Your task to perform on an android device: see tabs open on other devices in the chrome app Image 0: 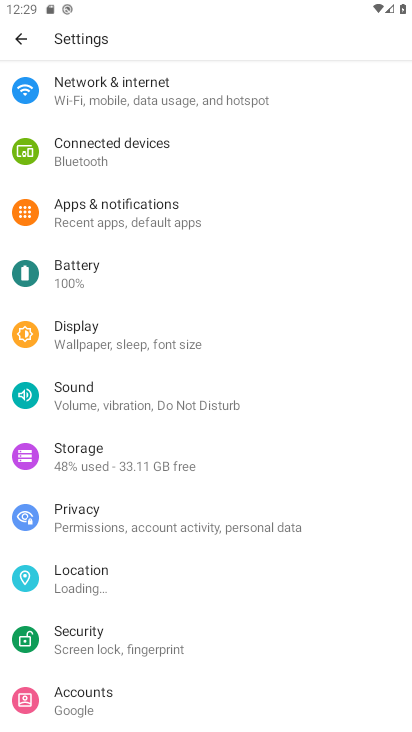
Step 0: press home button
Your task to perform on an android device: see tabs open on other devices in the chrome app Image 1: 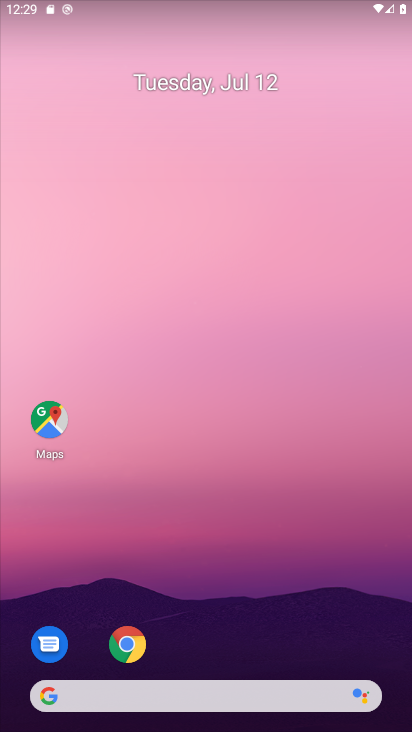
Step 1: drag from (217, 309) to (242, 16)
Your task to perform on an android device: see tabs open on other devices in the chrome app Image 2: 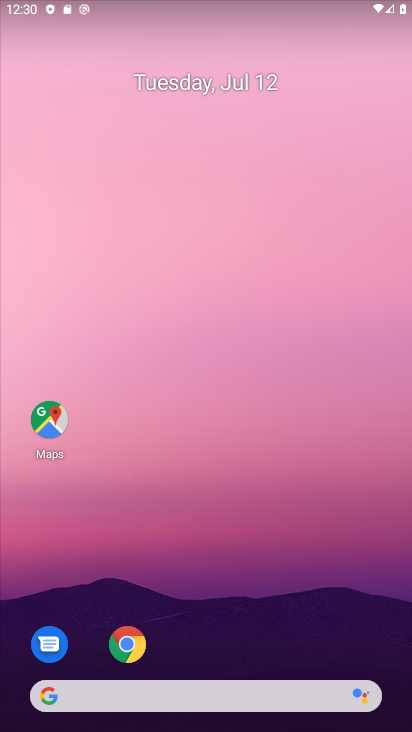
Step 2: drag from (245, 600) to (243, 130)
Your task to perform on an android device: see tabs open on other devices in the chrome app Image 3: 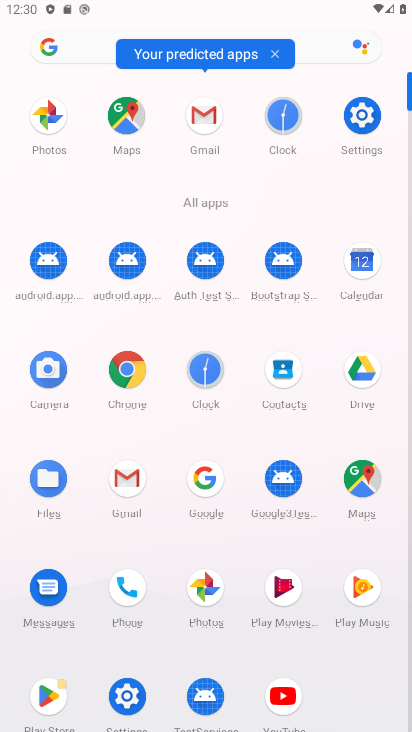
Step 3: click (131, 371)
Your task to perform on an android device: see tabs open on other devices in the chrome app Image 4: 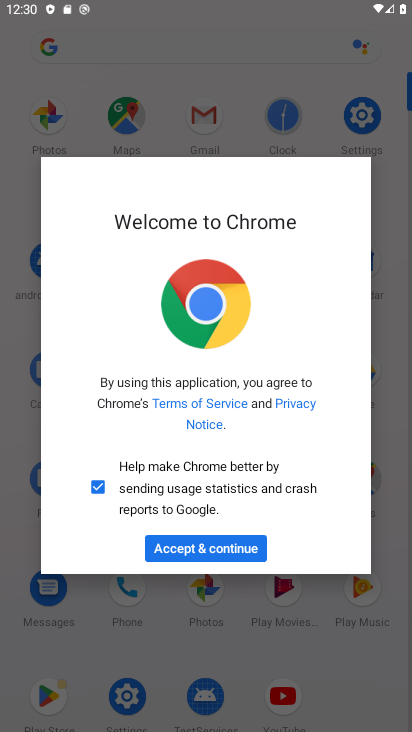
Step 4: click (221, 556)
Your task to perform on an android device: see tabs open on other devices in the chrome app Image 5: 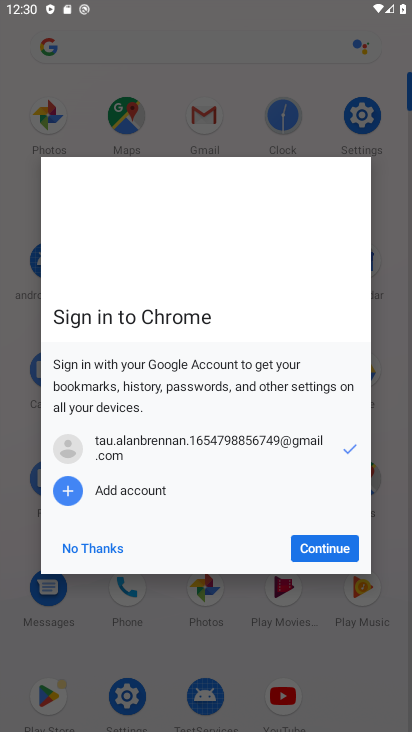
Step 5: click (333, 549)
Your task to perform on an android device: see tabs open on other devices in the chrome app Image 6: 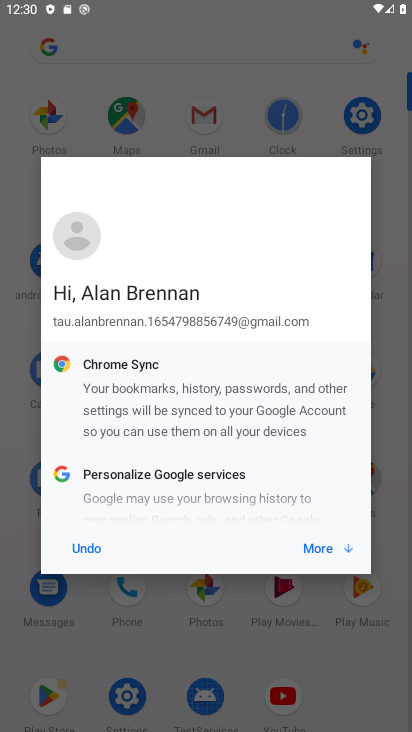
Step 6: click (333, 550)
Your task to perform on an android device: see tabs open on other devices in the chrome app Image 7: 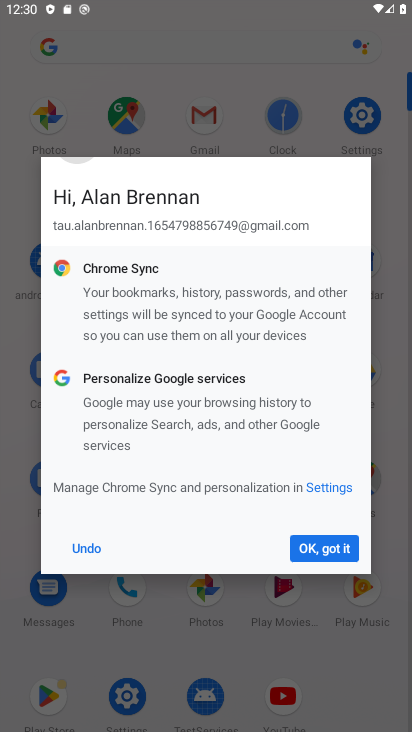
Step 7: click (333, 550)
Your task to perform on an android device: see tabs open on other devices in the chrome app Image 8: 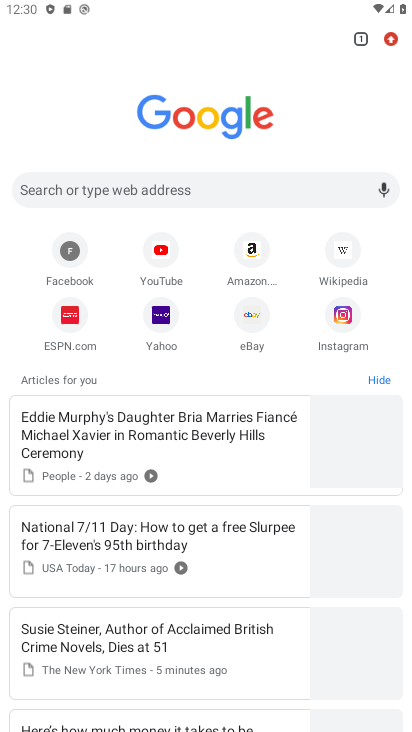
Step 8: click (389, 41)
Your task to perform on an android device: see tabs open on other devices in the chrome app Image 9: 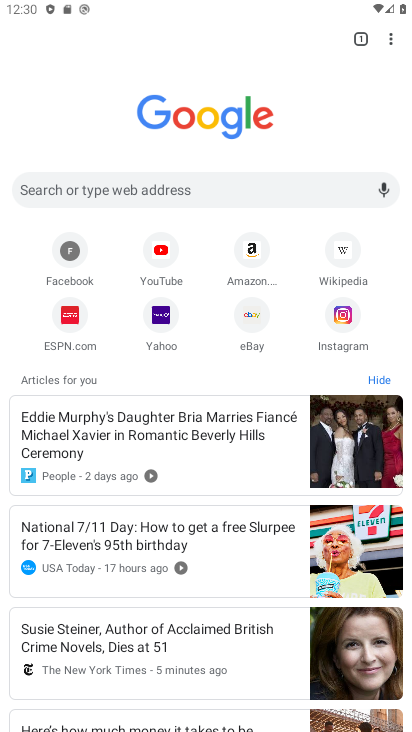
Step 9: click (390, 38)
Your task to perform on an android device: see tabs open on other devices in the chrome app Image 10: 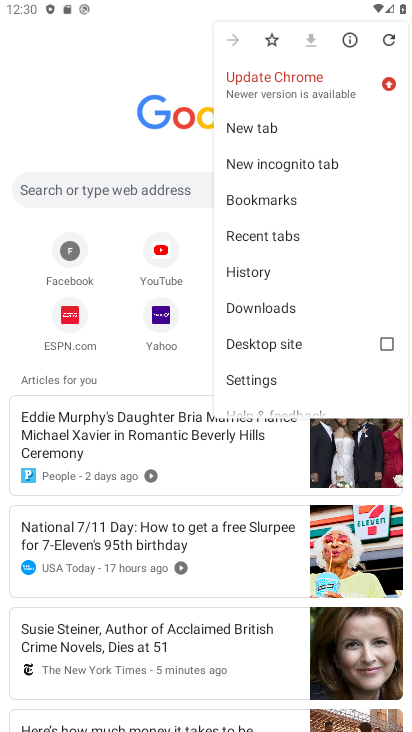
Step 10: click (284, 240)
Your task to perform on an android device: see tabs open on other devices in the chrome app Image 11: 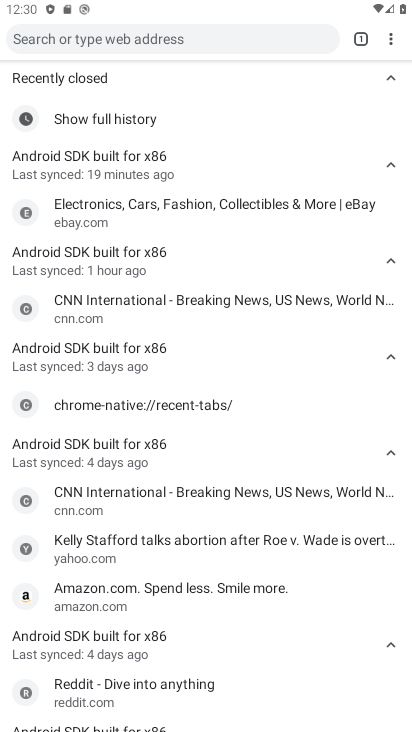
Step 11: task complete